Your task to perform on an android device: turn pop-ups on in chrome Image 0: 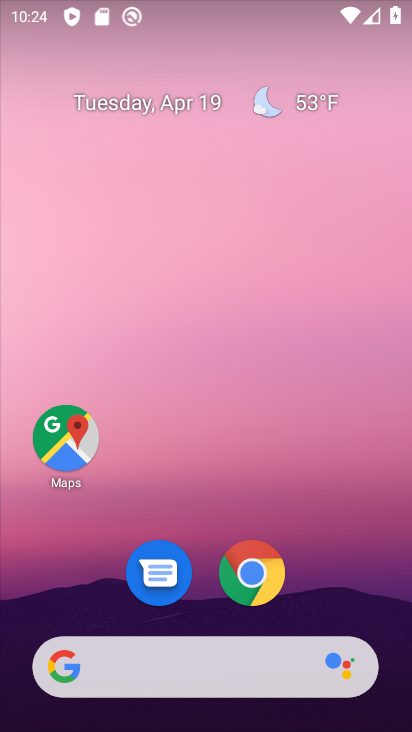
Step 0: click (252, 571)
Your task to perform on an android device: turn pop-ups on in chrome Image 1: 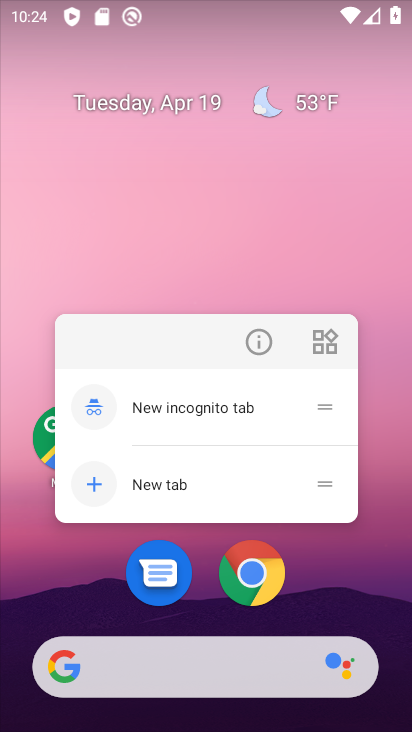
Step 1: click (253, 571)
Your task to perform on an android device: turn pop-ups on in chrome Image 2: 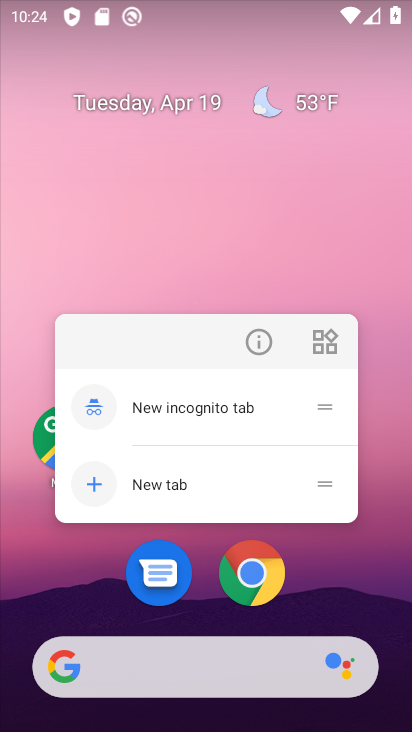
Step 2: click (259, 572)
Your task to perform on an android device: turn pop-ups on in chrome Image 3: 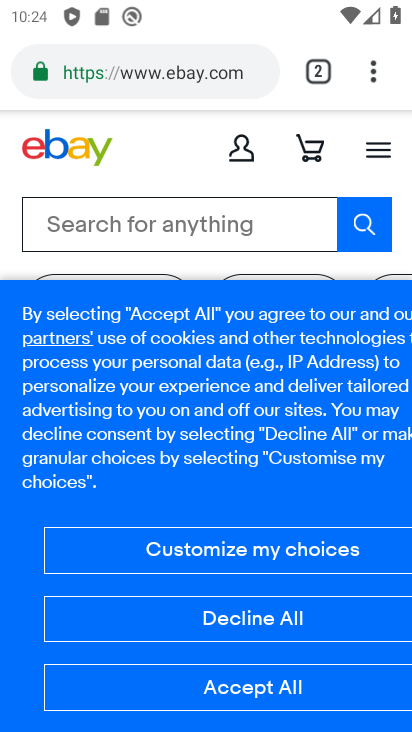
Step 3: click (373, 75)
Your task to perform on an android device: turn pop-ups on in chrome Image 4: 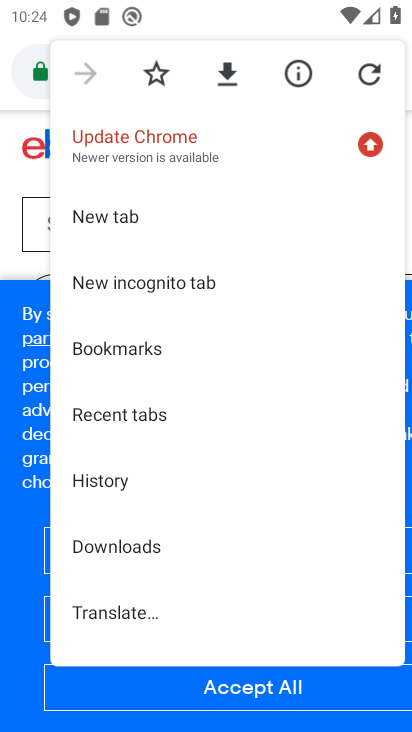
Step 4: drag from (172, 606) to (192, 220)
Your task to perform on an android device: turn pop-ups on in chrome Image 5: 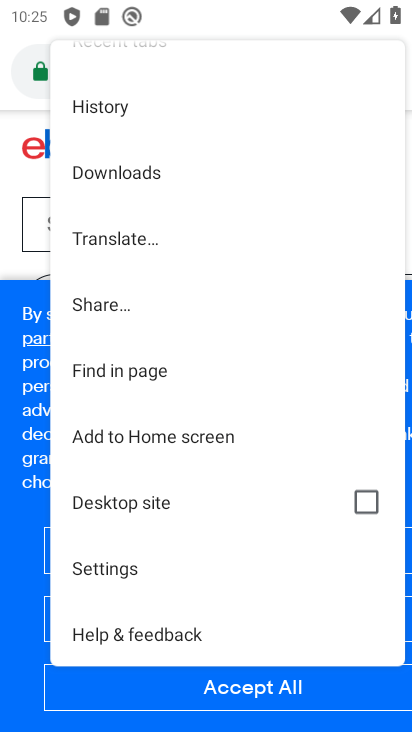
Step 5: click (108, 567)
Your task to perform on an android device: turn pop-ups on in chrome Image 6: 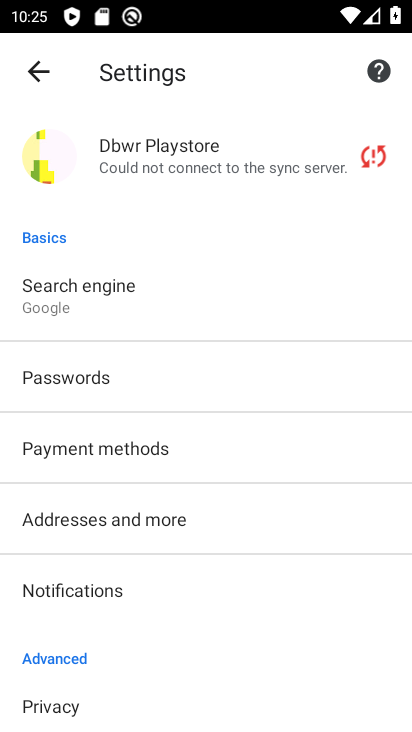
Step 6: drag from (164, 674) to (193, 267)
Your task to perform on an android device: turn pop-ups on in chrome Image 7: 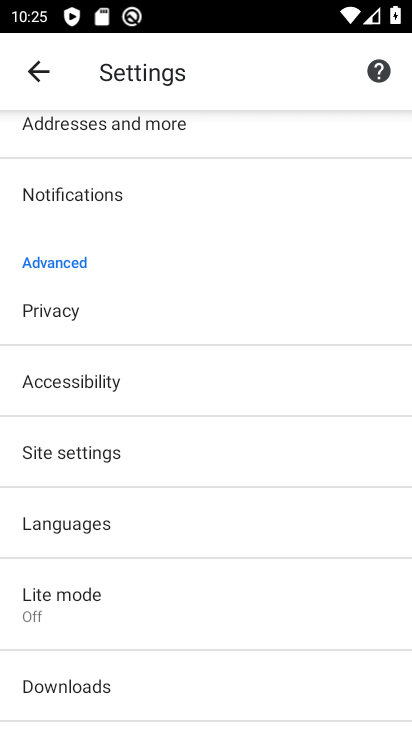
Step 7: click (84, 453)
Your task to perform on an android device: turn pop-ups on in chrome Image 8: 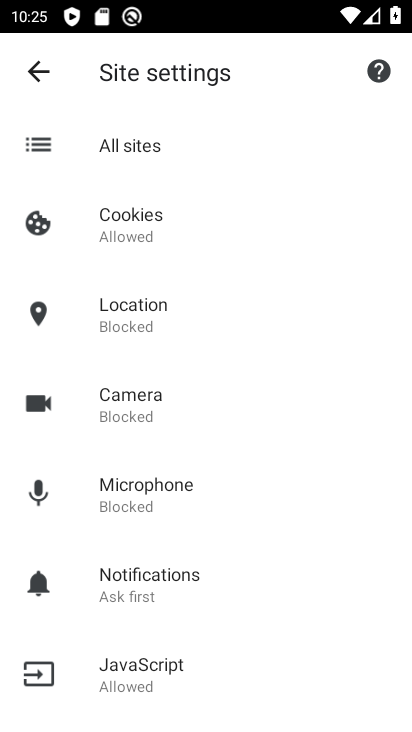
Step 8: drag from (208, 678) to (228, 231)
Your task to perform on an android device: turn pop-ups on in chrome Image 9: 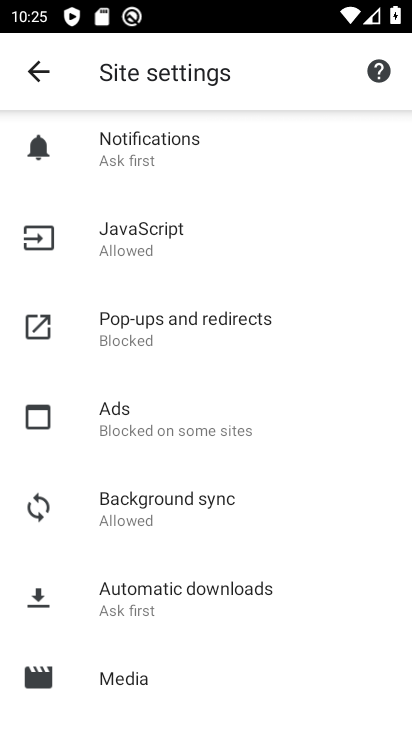
Step 9: click (140, 316)
Your task to perform on an android device: turn pop-ups on in chrome Image 10: 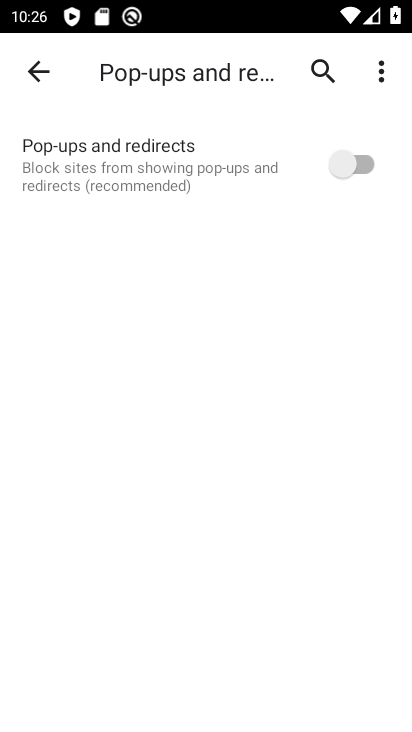
Step 10: click (365, 165)
Your task to perform on an android device: turn pop-ups on in chrome Image 11: 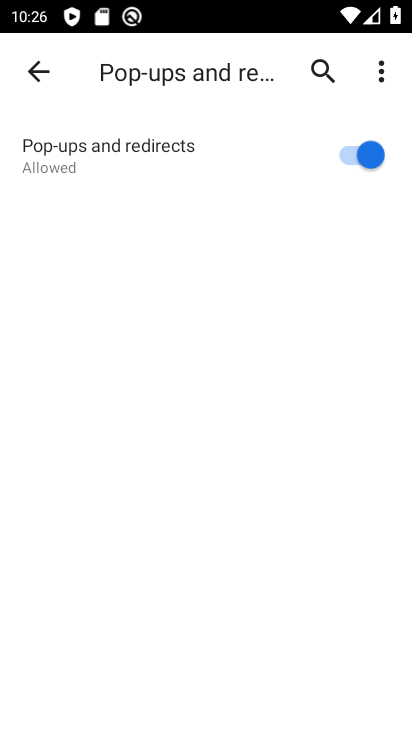
Step 11: task complete